Your task to perform on an android device: turn off javascript in the chrome app Image 0: 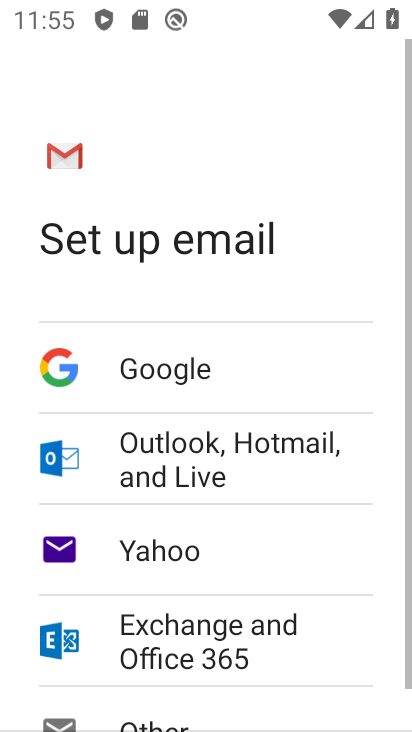
Step 0: press home button
Your task to perform on an android device: turn off javascript in the chrome app Image 1: 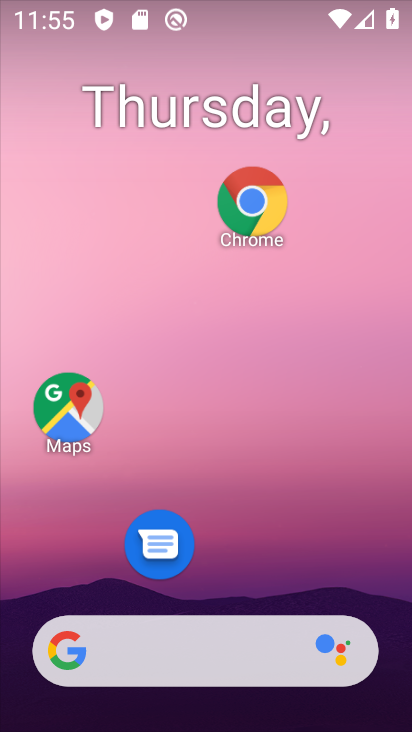
Step 1: drag from (210, 599) to (166, 7)
Your task to perform on an android device: turn off javascript in the chrome app Image 2: 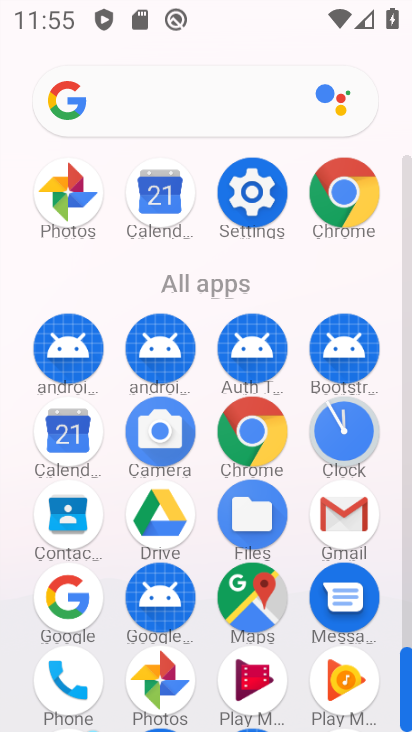
Step 2: click (252, 454)
Your task to perform on an android device: turn off javascript in the chrome app Image 3: 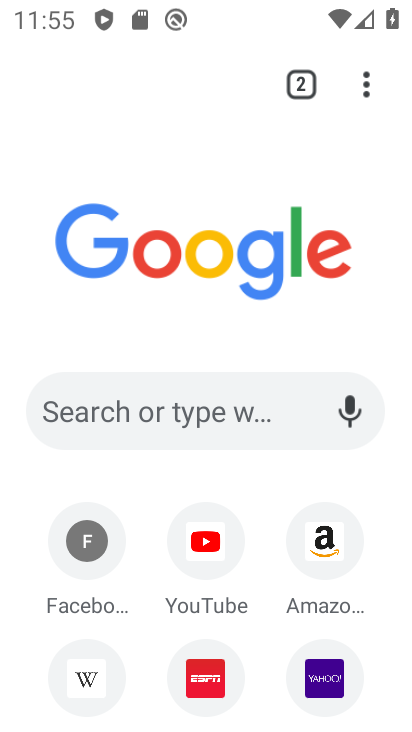
Step 3: drag from (368, 89) to (162, 597)
Your task to perform on an android device: turn off javascript in the chrome app Image 4: 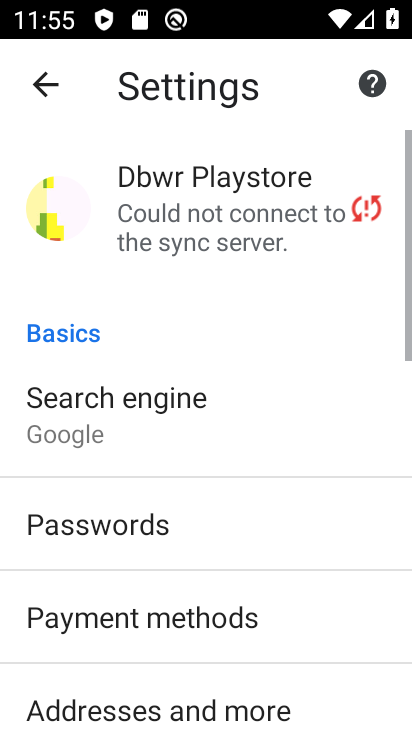
Step 4: drag from (206, 626) to (138, 140)
Your task to perform on an android device: turn off javascript in the chrome app Image 5: 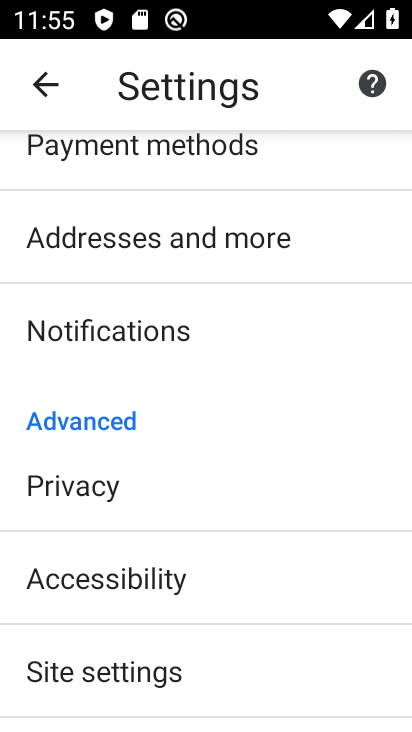
Step 5: drag from (139, 616) to (93, 212)
Your task to perform on an android device: turn off javascript in the chrome app Image 6: 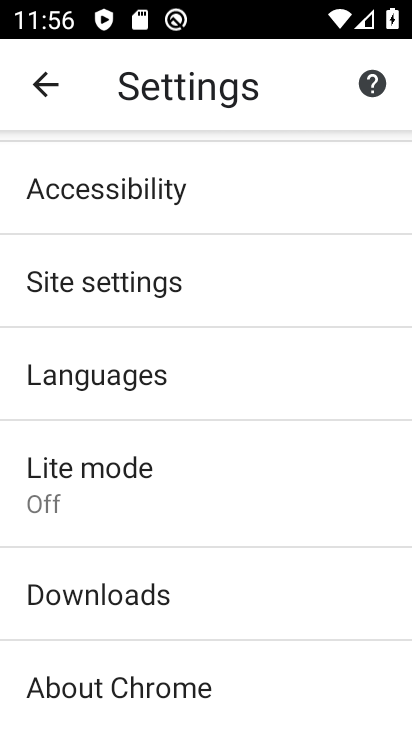
Step 6: click (74, 277)
Your task to perform on an android device: turn off javascript in the chrome app Image 7: 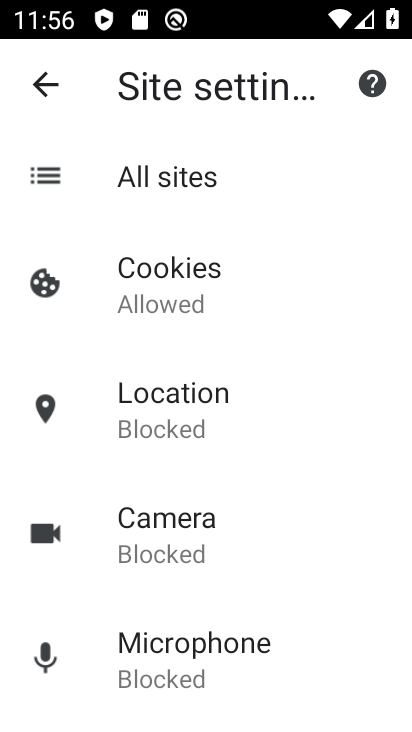
Step 7: drag from (209, 629) to (159, 218)
Your task to perform on an android device: turn off javascript in the chrome app Image 8: 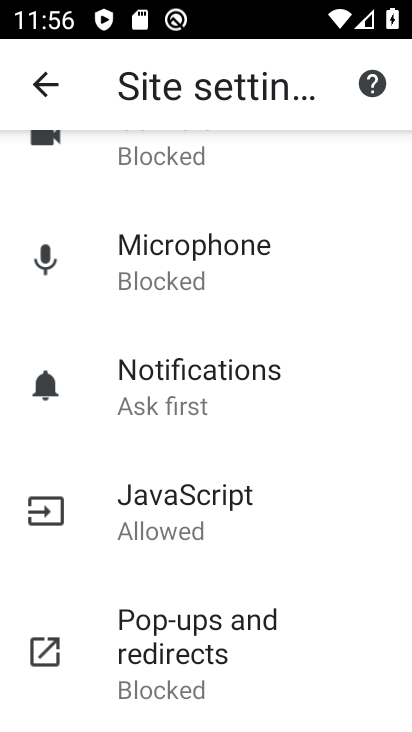
Step 8: click (149, 536)
Your task to perform on an android device: turn off javascript in the chrome app Image 9: 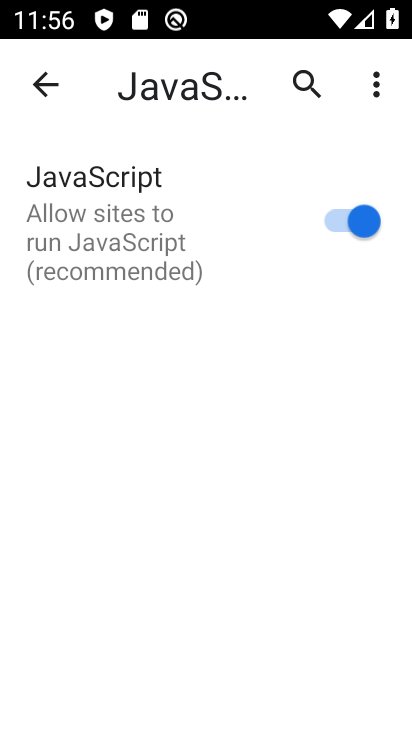
Step 9: click (330, 222)
Your task to perform on an android device: turn off javascript in the chrome app Image 10: 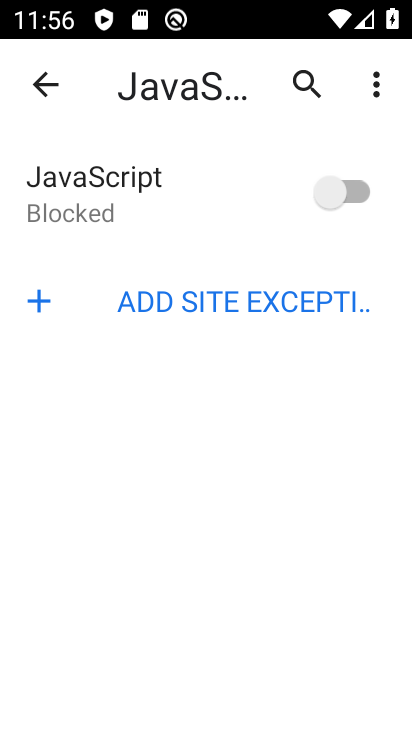
Step 10: task complete